Your task to perform on an android device: check the backup settings in the google photos Image 0: 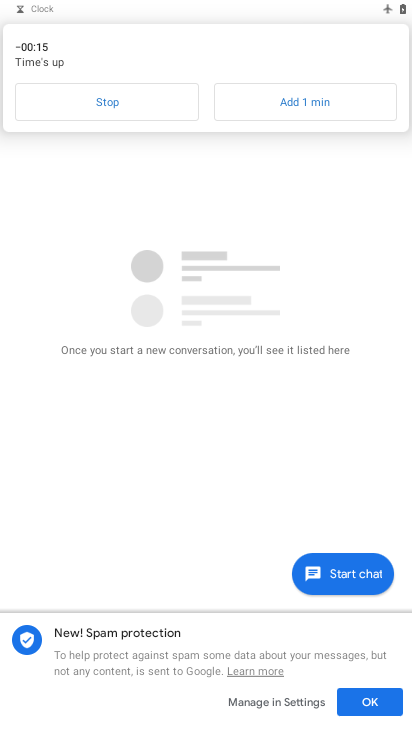
Step 0: press home button
Your task to perform on an android device: check the backup settings in the google photos Image 1: 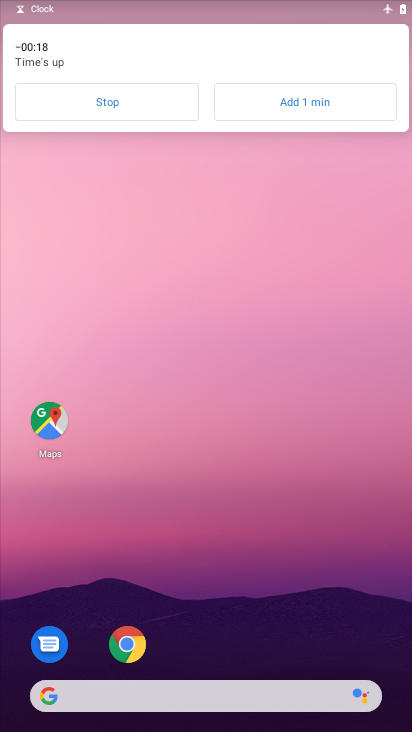
Step 1: click (120, 636)
Your task to perform on an android device: check the backup settings in the google photos Image 2: 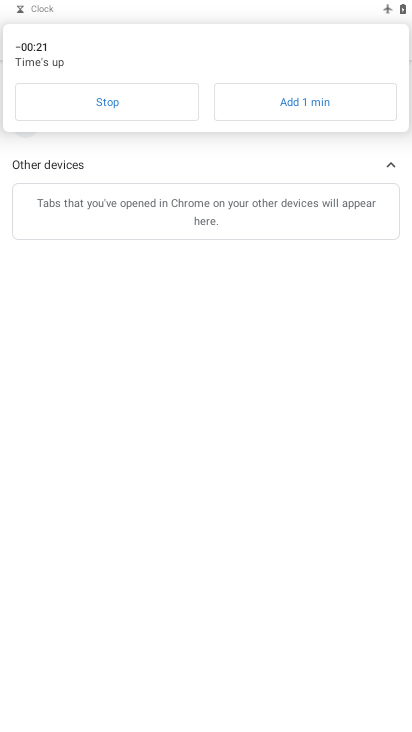
Step 2: click (88, 100)
Your task to perform on an android device: check the backup settings in the google photos Image 3: 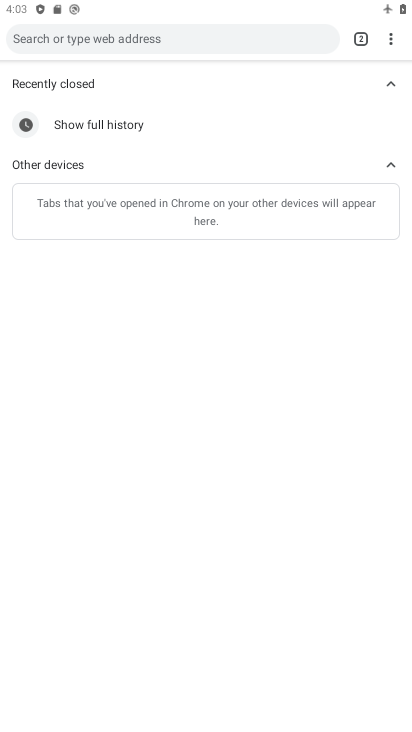
Step 3: click (389, 38)
Your task to perform on an android device: check the backup settings in the google photos Image 4: 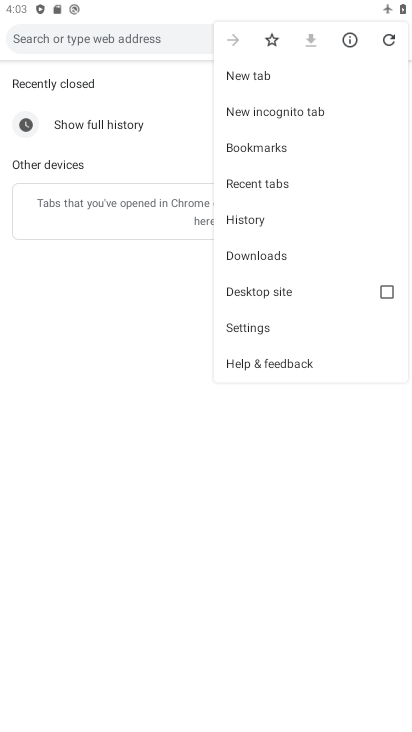
Step 4: click (269, 331)
Your task to perform on an android device: check the backup settings in the google photos Image 5: 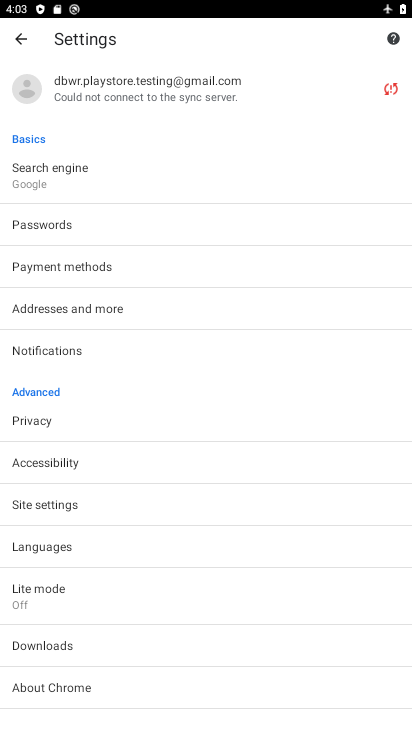
Step 5: press home button
Your task to perform on an android device: check the backup settings in the google photos Image 6: 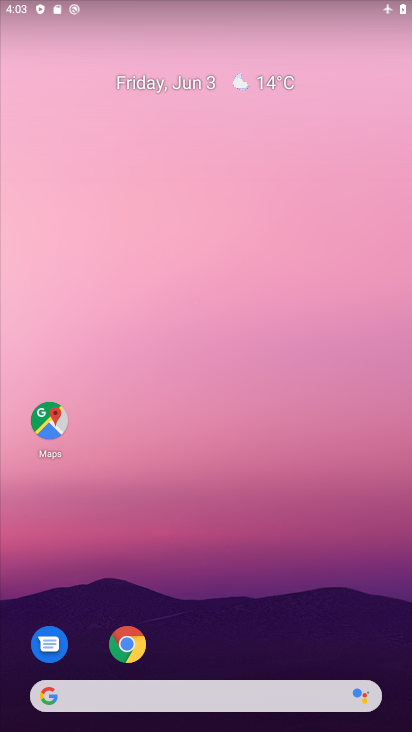
Step 6: drag from (164, 642) to (189, 24)
Your task to perform on an android device: check the backup settings in the google photos Image 7: 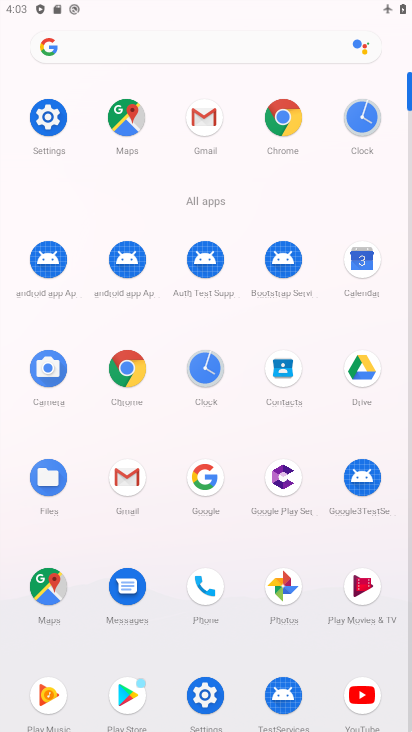
Step 7: click (278, 585)
Your task to perform on an android device: check the backup settings in the google photos Image 8: 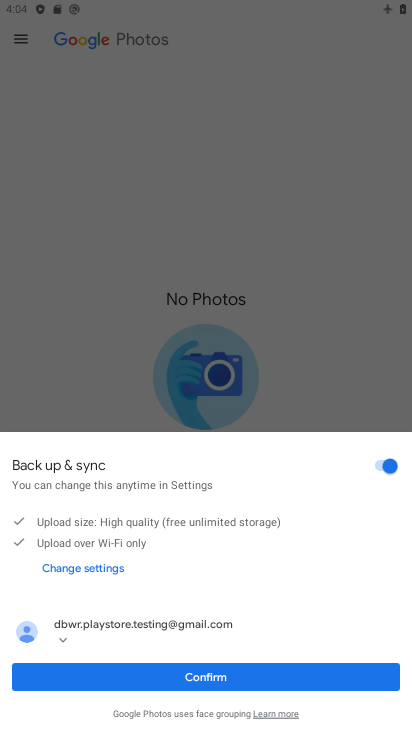
Step 8: task complete